Your task to perform on an android device: check storage Image 0: 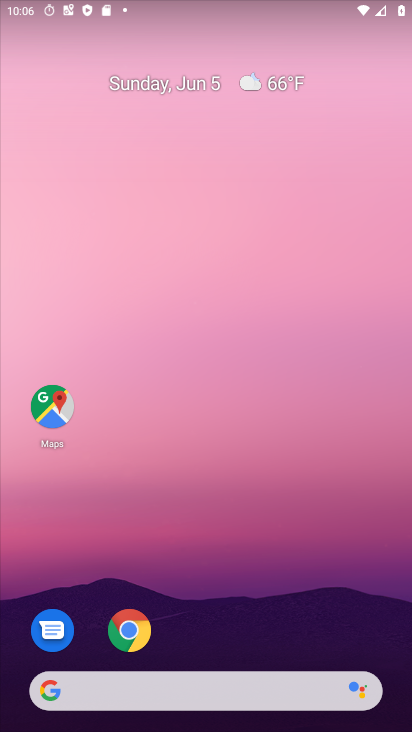
Step 0: drag from (245, 727) to (233, 67)
Your task to perform on an android device: check storage Image 1: 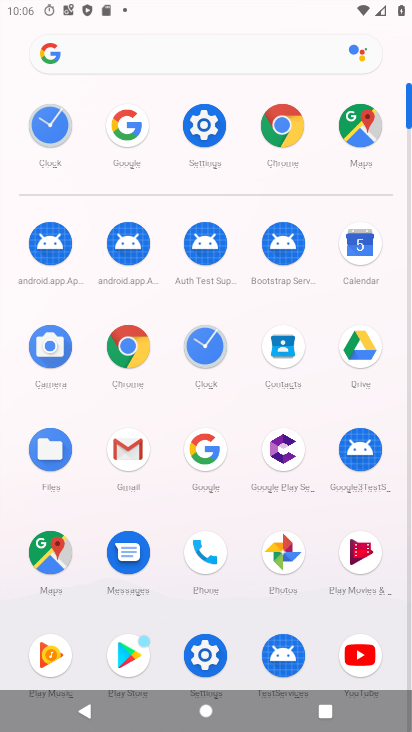
Step 1: click (201, 116)
Your task to perform on an android device: check storage Image 2: 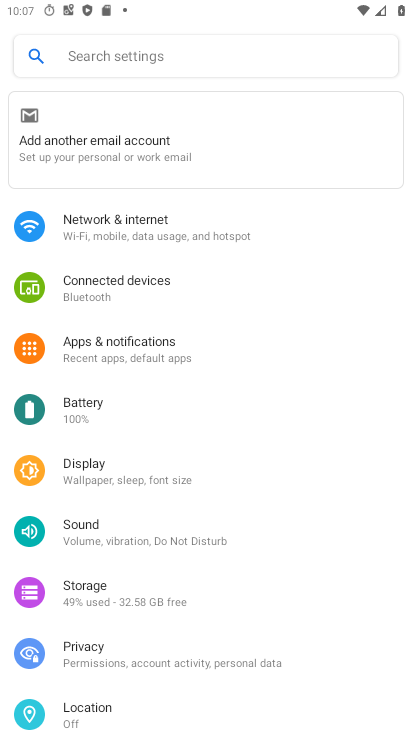
Step 2: click (86, 591)
Your task to perform on an android device: check storage Image 3: 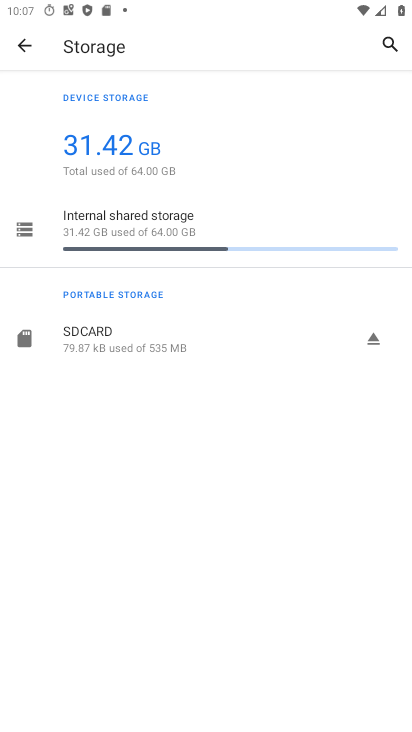
Step 3: task complete